Your task to perform on an android device: Open eBay Image 0: 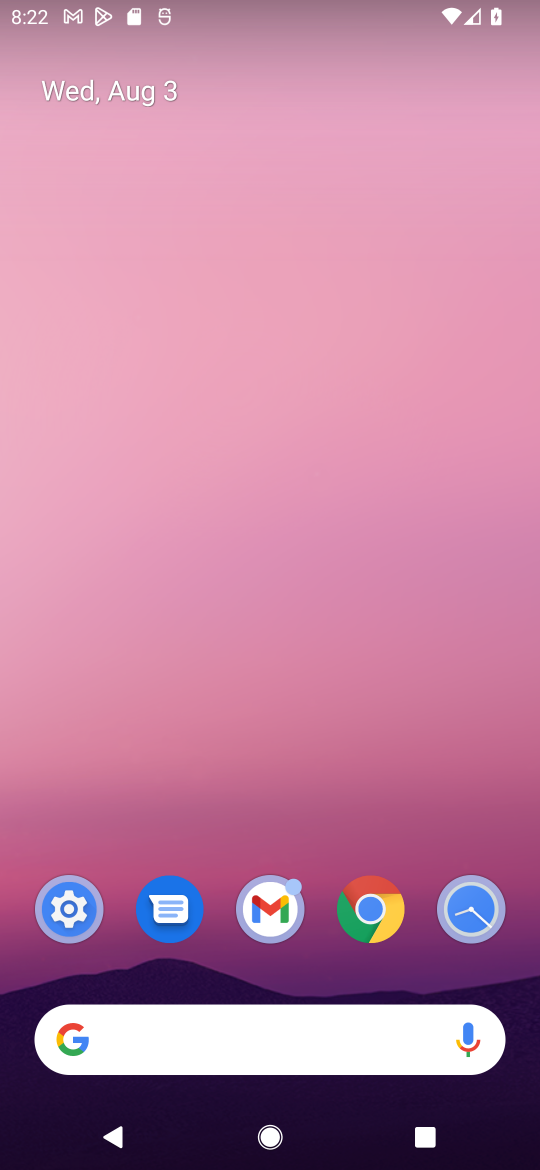
Step 0: press home button
Your task to perform on an android device: Open eBay Image 1: 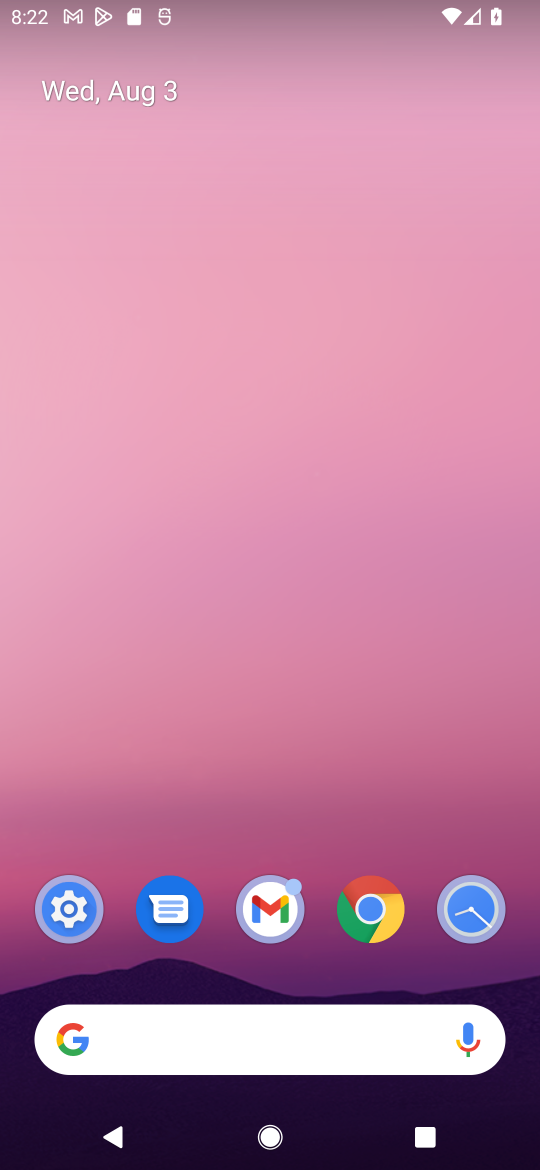
Step 1: drag from (323, 830) to (349, 215)
Your task to perform on an android device: Open eBay Image 2: 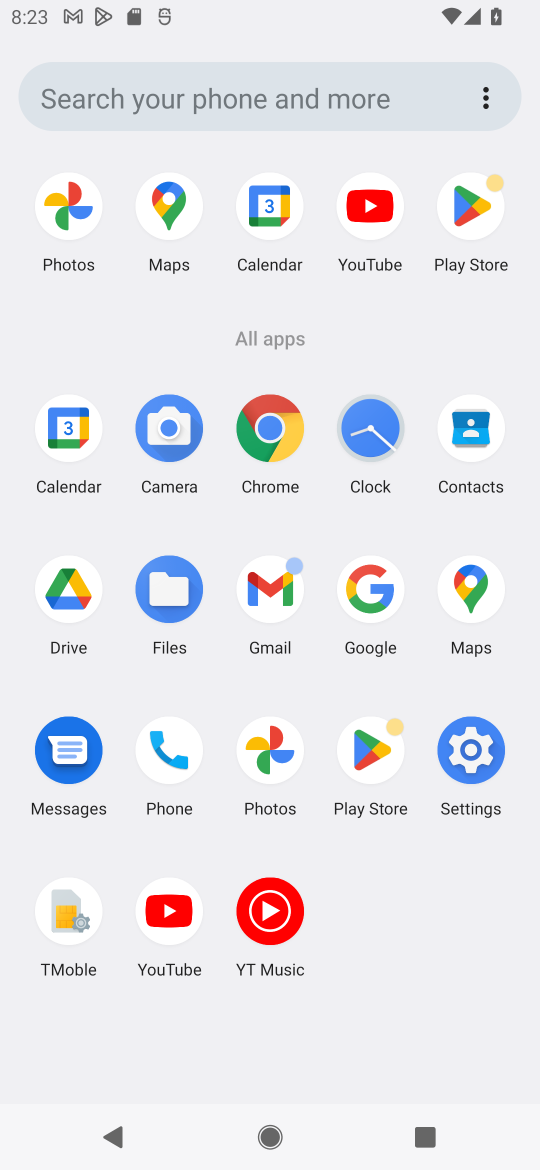
Step 2: click (266, 431)
Your task to perform on an android device: Open eBay Image 3: 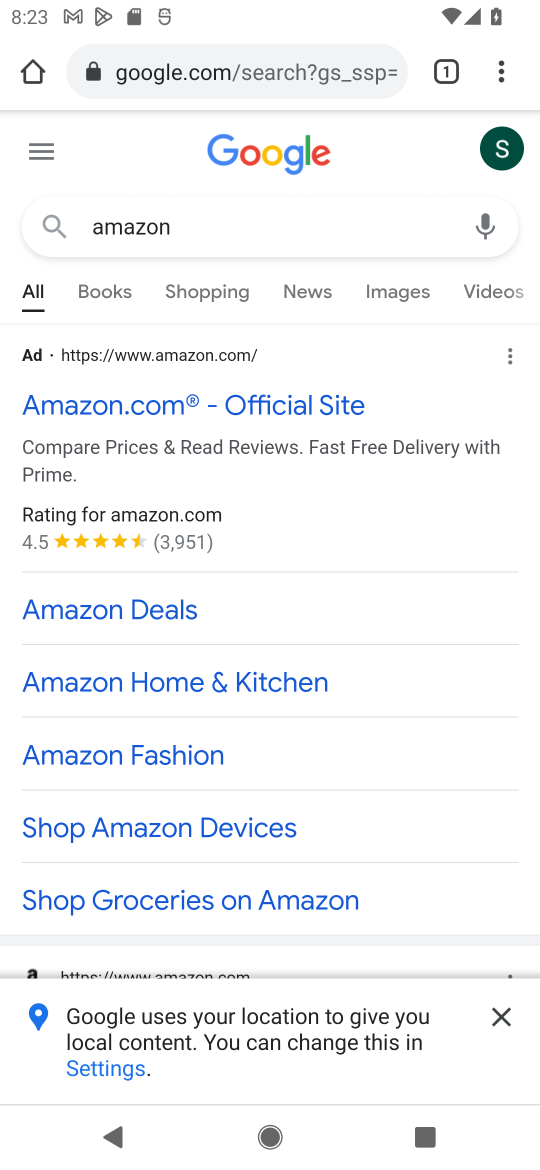
Step 3: click (306, 74)
Your task to perform on an android device: Open eBay Image 4: 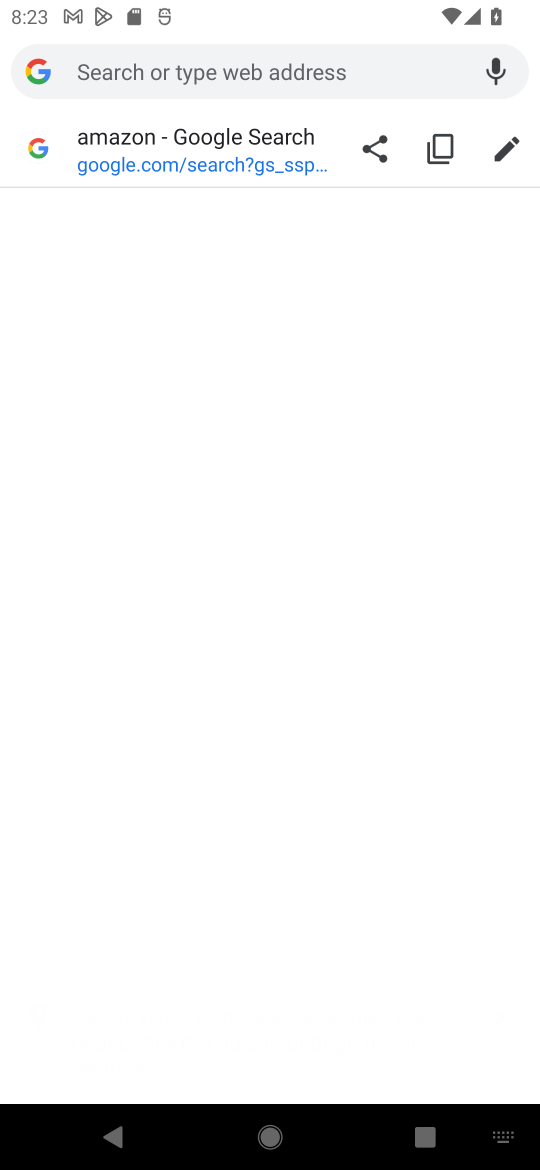
Step 4: type "ebay"
Your task to perform on an android device: Open eBay Image 5: 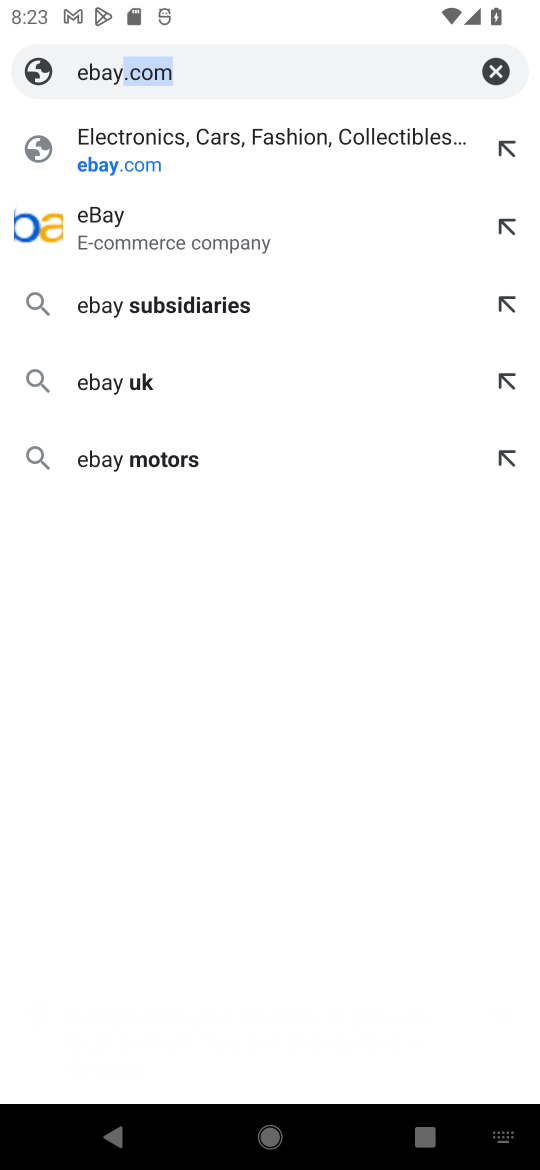
Step 5: click (215, 145)
Your task to perform on an android device: Open eBay Image 6: 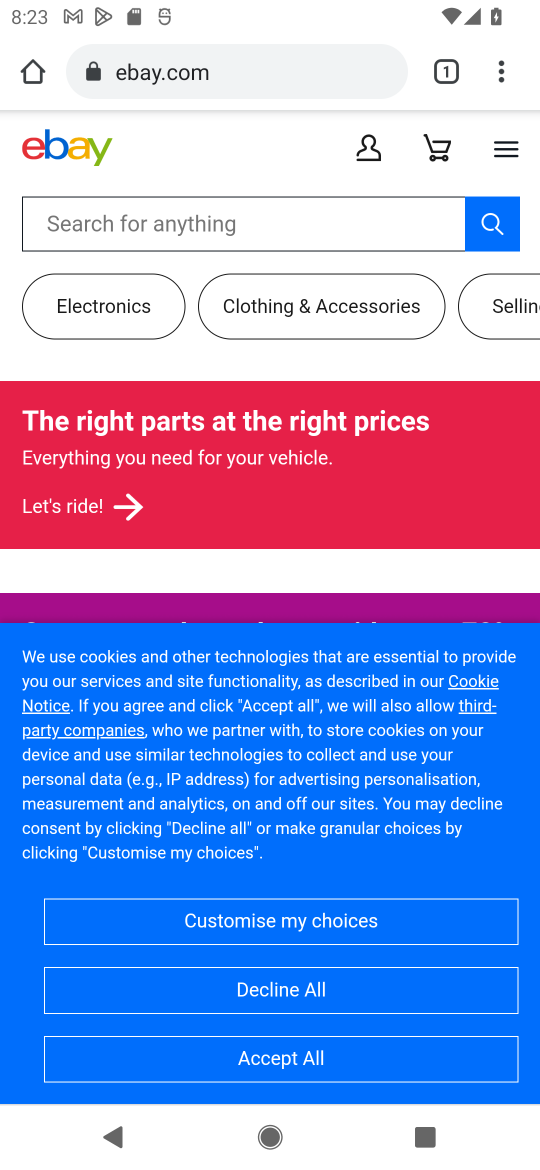
Step 6: task complete